Your task to perform on an android device: find which apps use the phone's location Image 0: 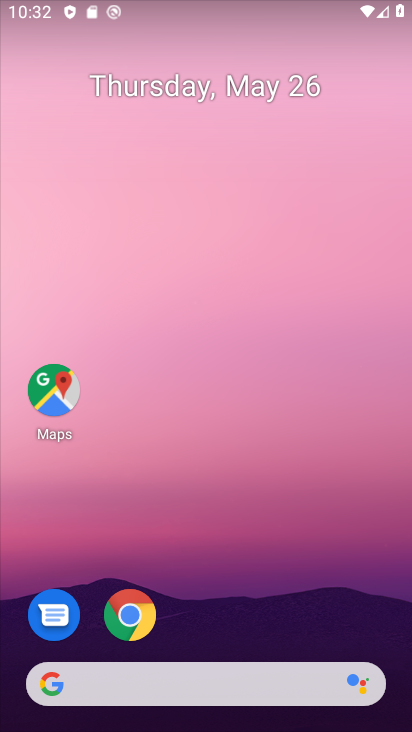
Step 0: drag from (303, 614) to (327, 146)
Your task to perform on an android device: find which apps use the phone's location Image 1: 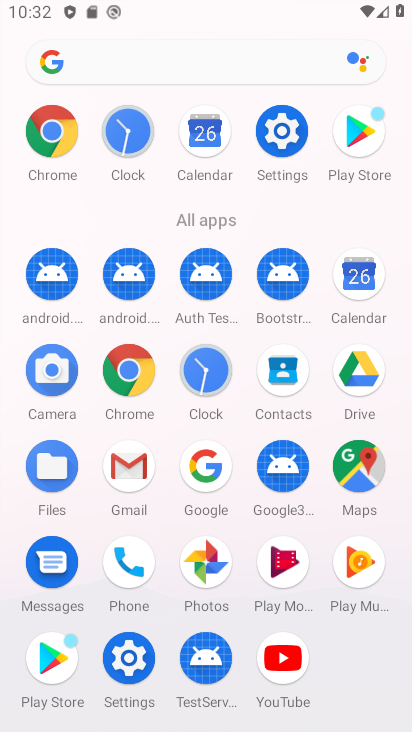
Step 1: click (124, 672)
Your task to perform on an android device: find which apps use the phone's location Image 2: 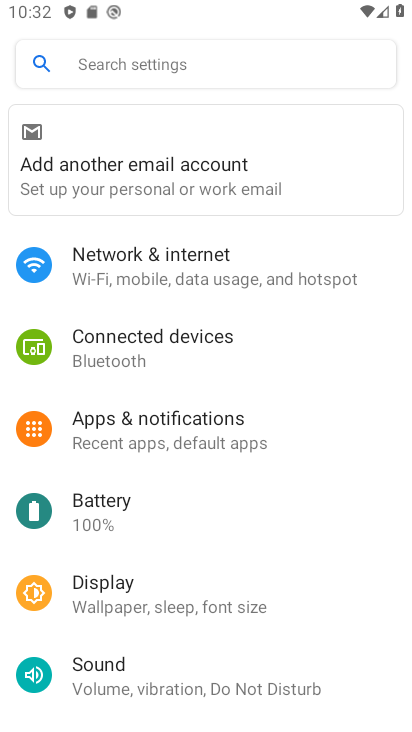
Step 2: drag from (145, 674) to (183, 464)
Your task to perform on an android device: find which apps use the phone's location Image 3: 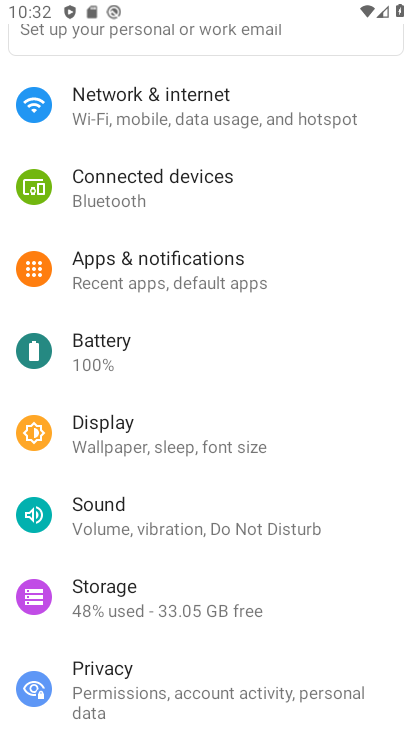
Step 3: drag from (179, 554) to (236, 366)
Your task to perform on an android device: find which apps use the phone's location Image 4: 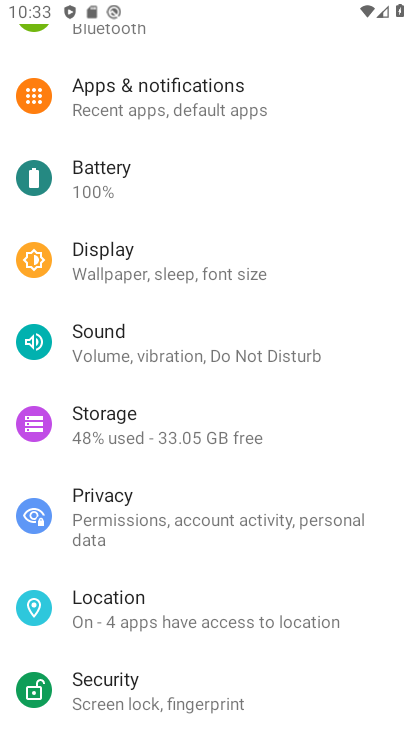
Step 4: click (186, 593)
Your task to perform on an android device: find which apps use the phone's location Image 5: 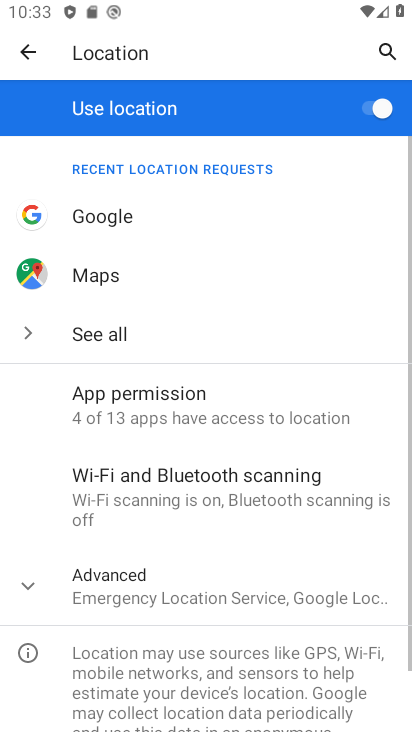
Step 5: click (211, 411)
Your task to perform on an android device: find which apps use the phone's location Image 6: 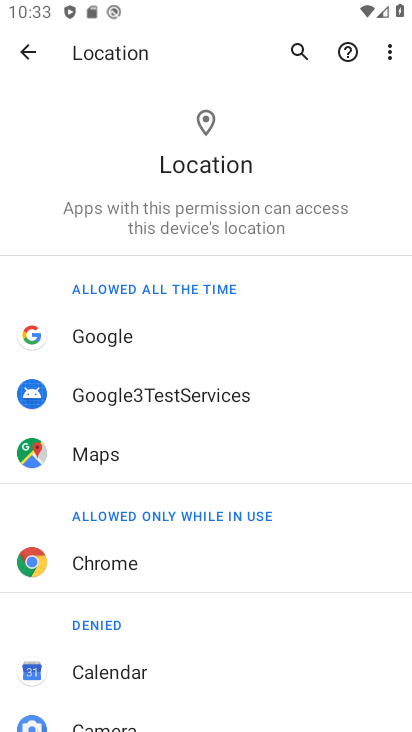
Step 6: task complete